Your task to perform on an android device: Open ESPN.com Image 0: 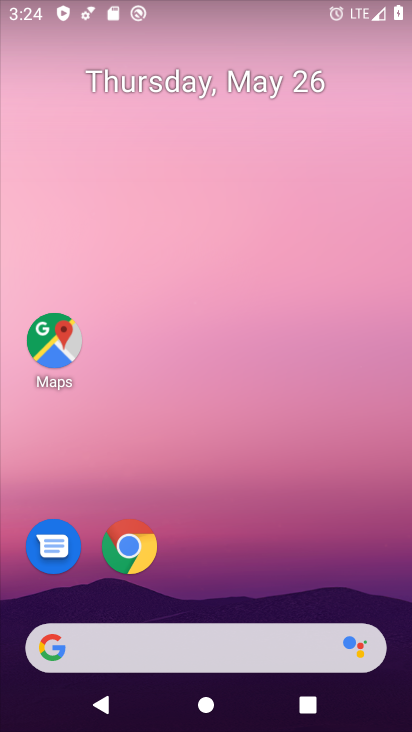
Step 0: click (133, 549)
Your task to perform on an android device: Open ESPN.com Image 1: 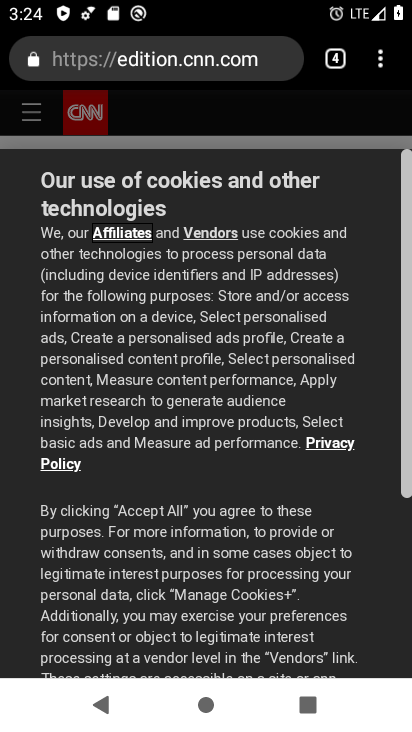
Step 1: click (343, 50)
Your task to perform on an android device: Open ESPN.com Image 2: 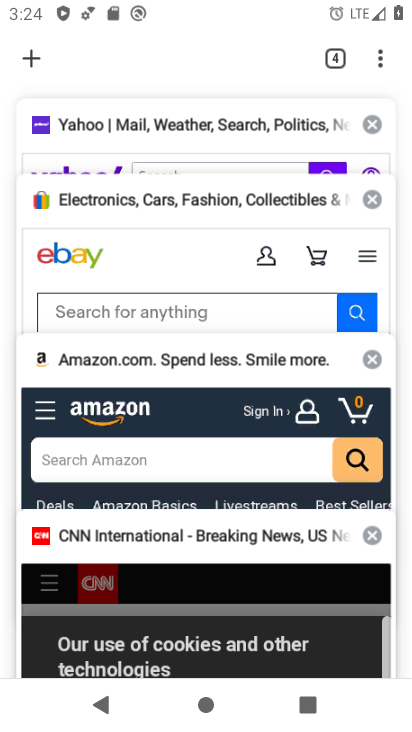
Step 2: click (28, 53)
Your task to perform on an android device: Open ESPN.com Image 3: 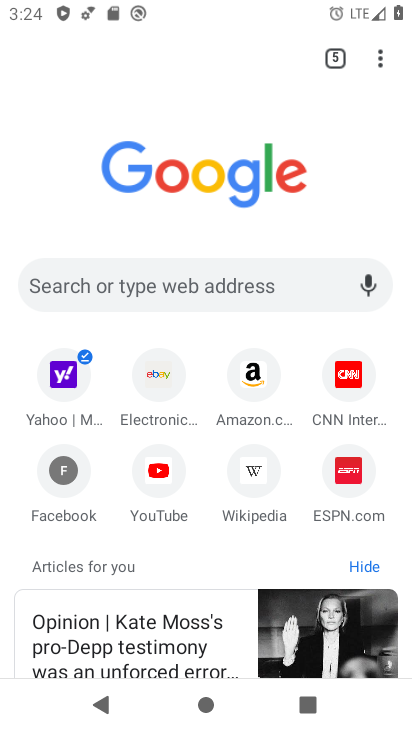
Step 3: click (348, 486)
Your task to perform on an android device: Open ESPN.com Image 4: 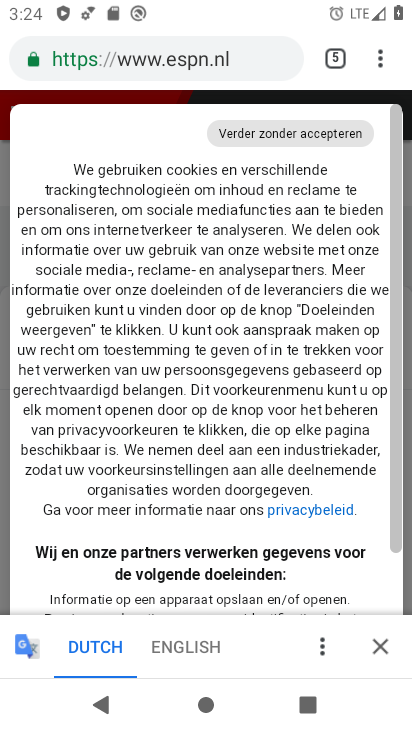
Step 4: task complete